Your task to perform on an android device: turn off notifications settings in the gmail app Image 0: 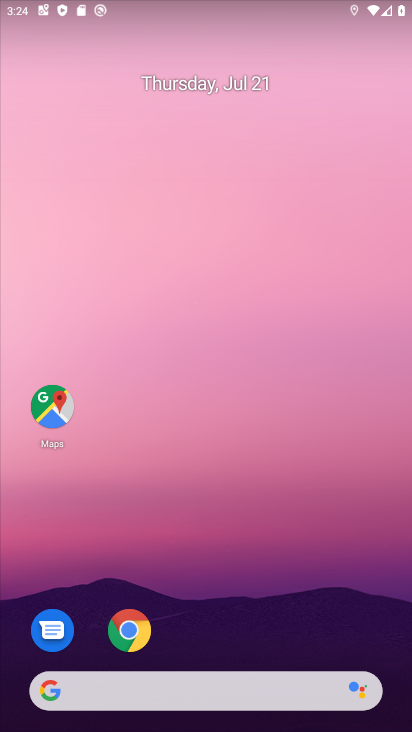
Step 0: drag from (245, 661) to (230, 56)
Your task to perform on an android device: turn off notifications settings in the gmail app Image 1: 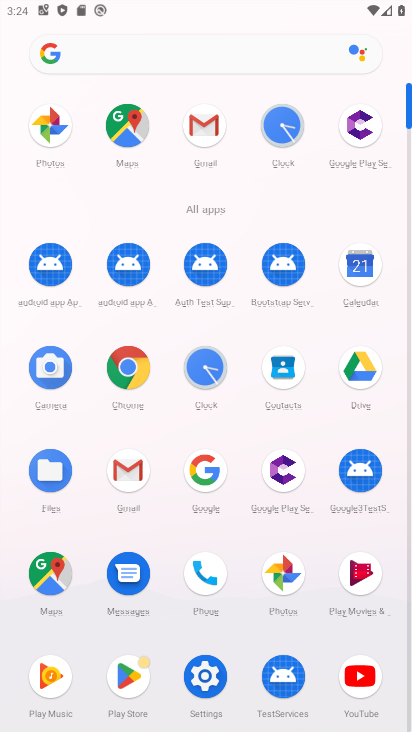
Step 1: click (133, 468)
Your task to perform on an android device: turn off notifications settings in the gmail app Image 2: 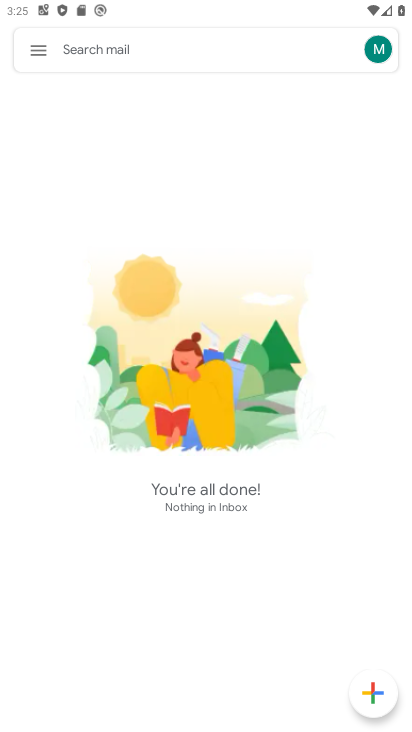
Step 2: click (43, 46)
Your task to perform on an android device: turn off notifications settings in the gmail app Image 3: 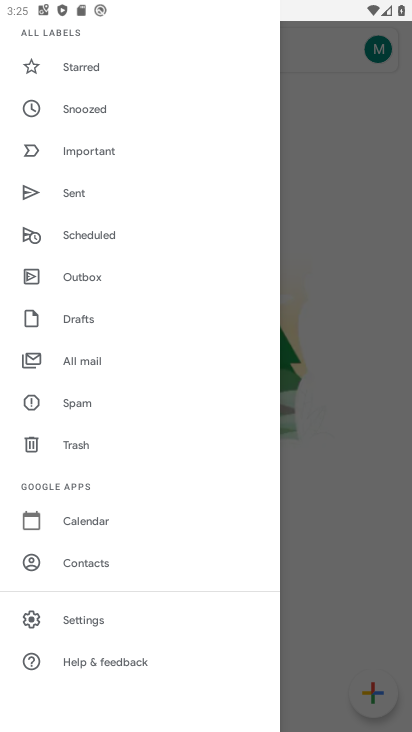
Step 3: click (98, 617)
Your task to perform on an android device: turn off notifications settings in the gmail app Image 4: 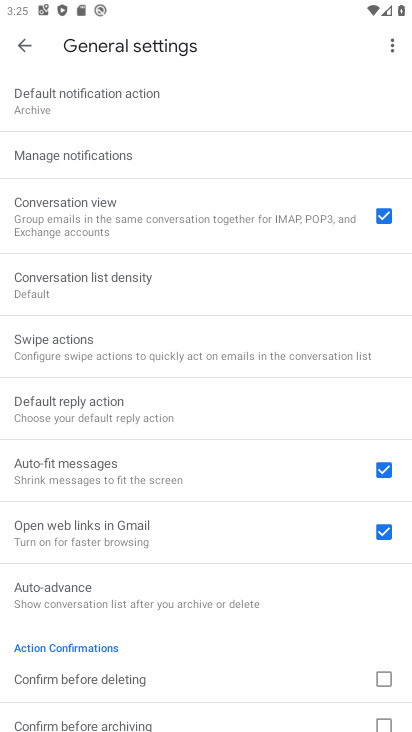
Step 4: click (232, 154)
Your task to perform on an android device: turn off notifications settings in the gmail app Image 5: 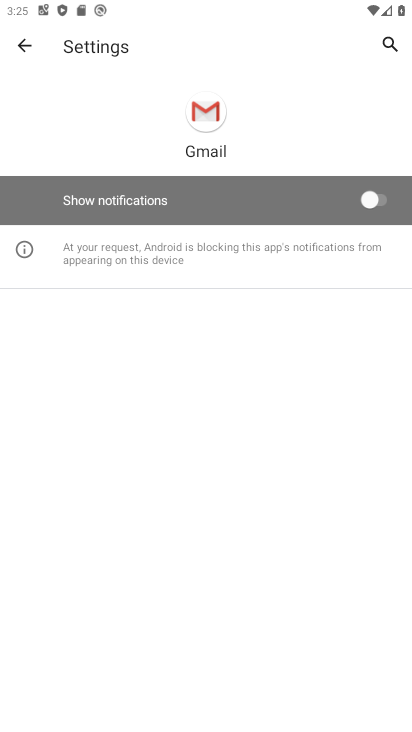
Step 5: task complete